Your task to perform on an android device: Show me productivity apps on the Play Store Image 0: 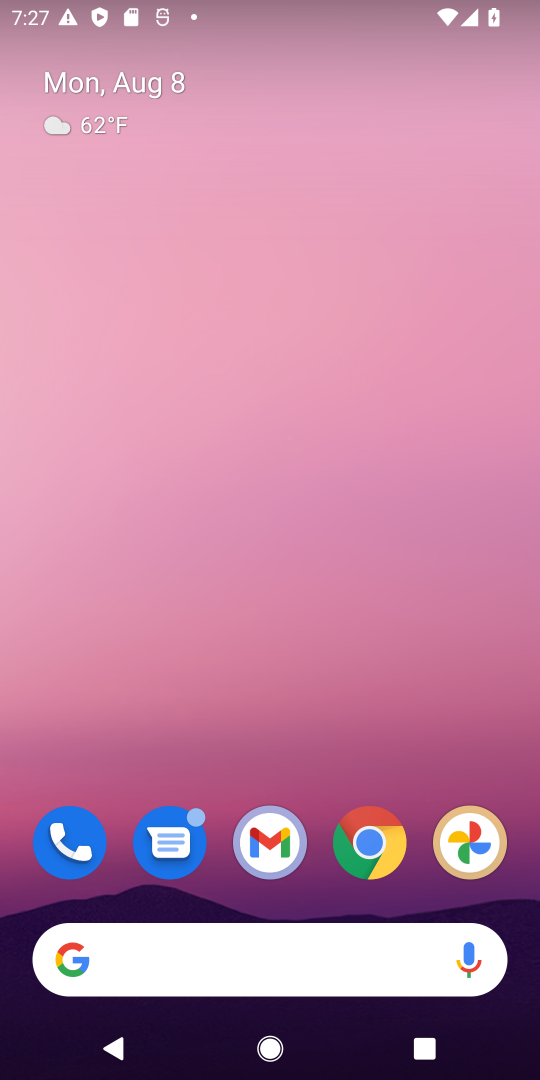
Step 0: drag from (318, 739) to (331, 0)
Your task to perform on an android device: Show me productivity apps on the Play Store Image 1: 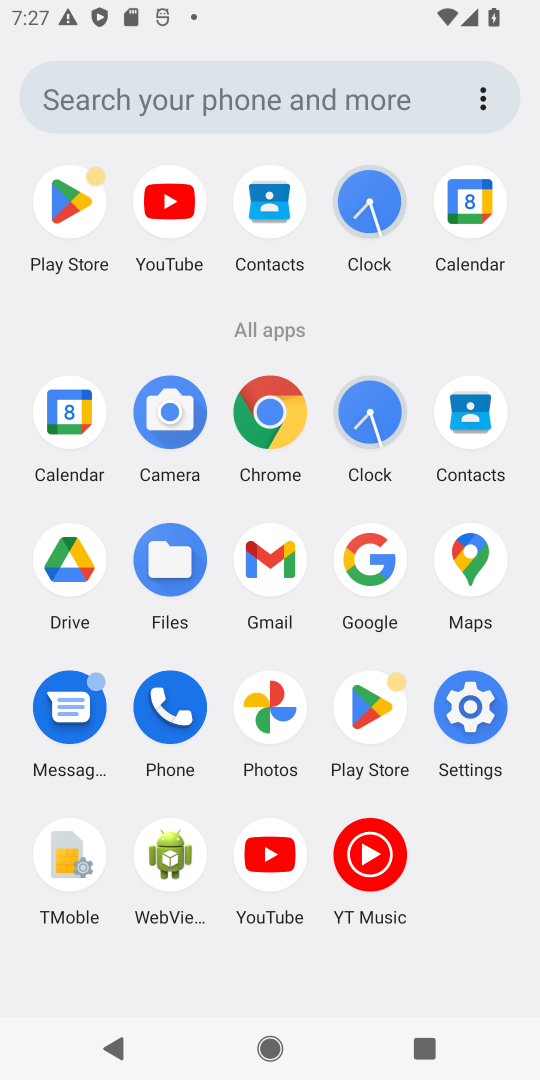
Step 1: click (365, 706)
Your task to perform on an android device: Show me productivity apps on the Play Store Image 2: 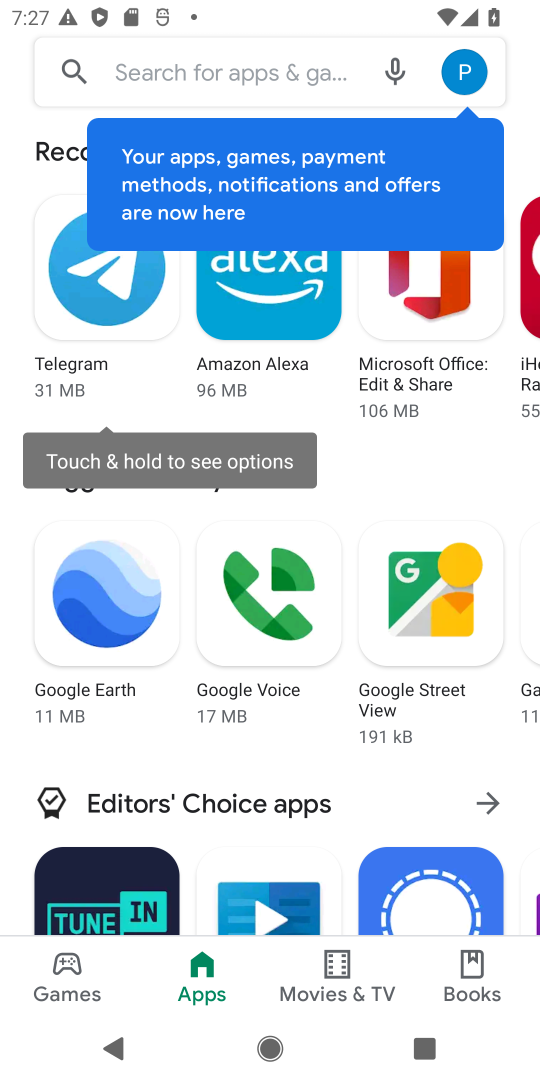
Step 2: drag from (343, 716) to (354, 331)
Your task to perform on an android device: Show me productivity apps on the Play Store Image 3: 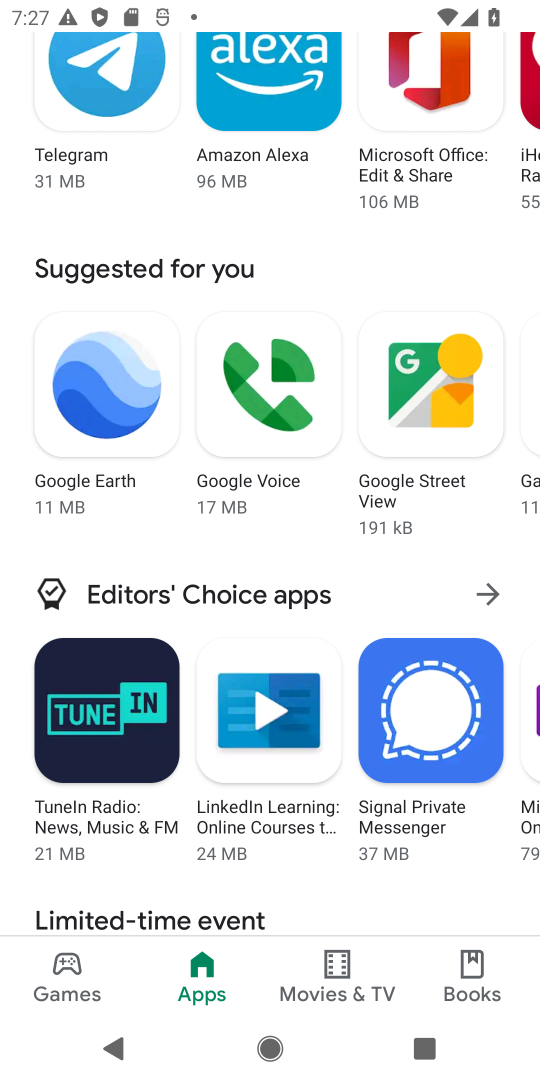
Step 3: press home button
Your task to perform on an android device: Show me productivity apps on the Play Store Image 4: 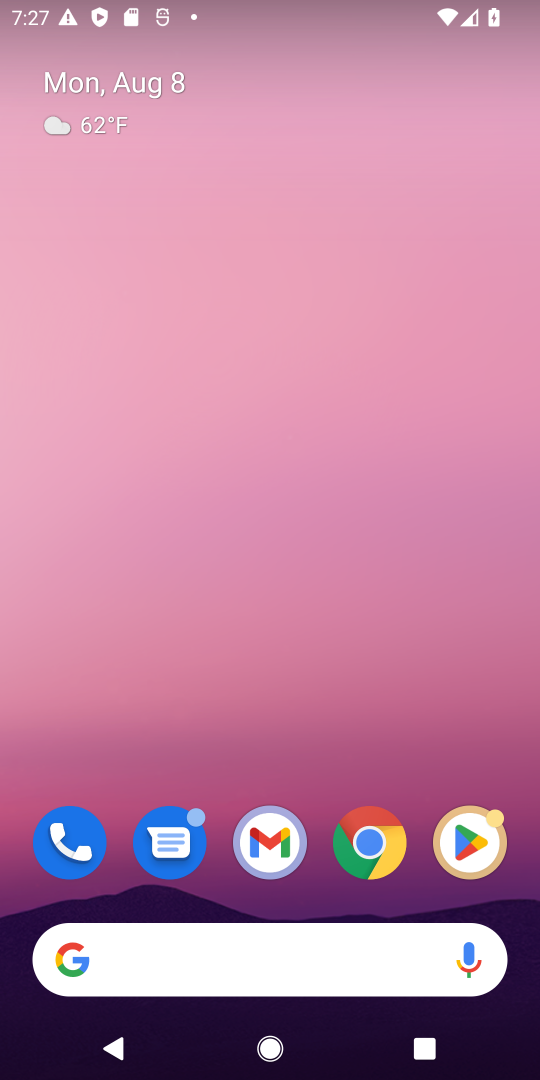
Step 4: drag from (240, 738) to (306, 6)
Your task to perform on an android device: Show me productivity apps on the Play Store Image 5: 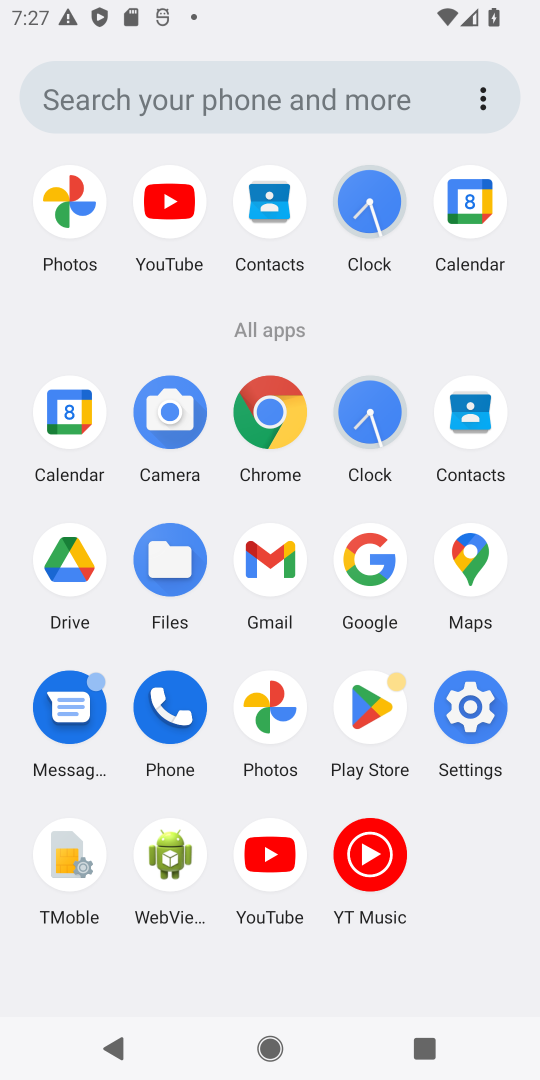
Step 5: click (367, 702)
Your task to perform on an android device: Show me productivity apps on the Play Store Image 6: 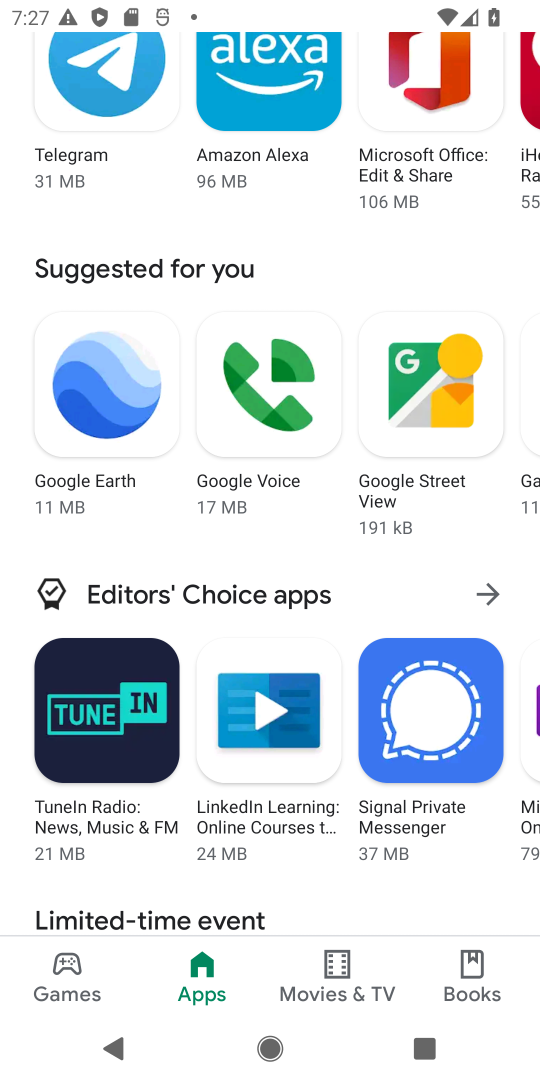
Step 6: press back button
Your task to perform on an android device: Show me productivity apps on the Play Store Image 7: 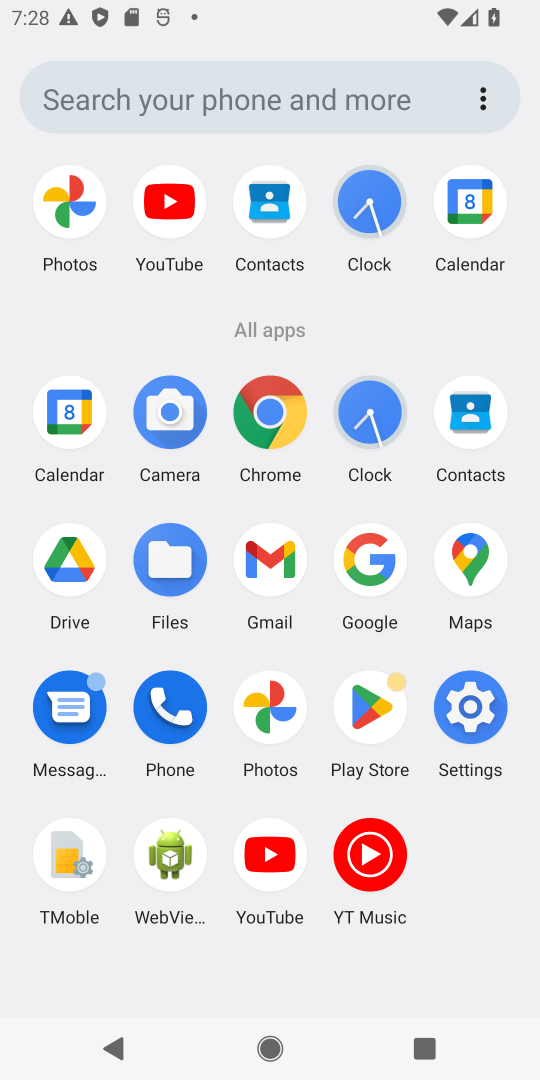
Step 7: click (383, 702)
Your task to perform on an android device: Show me productivity apps on the Play Store Image 8: 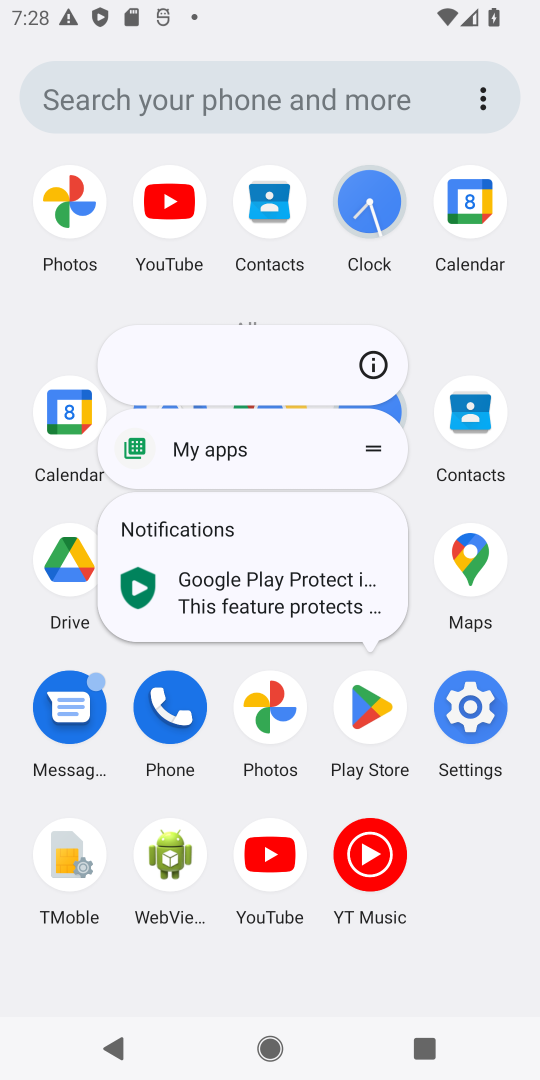
Step 8: click (383, 702)
Your task to perform on an android device: Show me productivity apps on the Play Store Image 9: 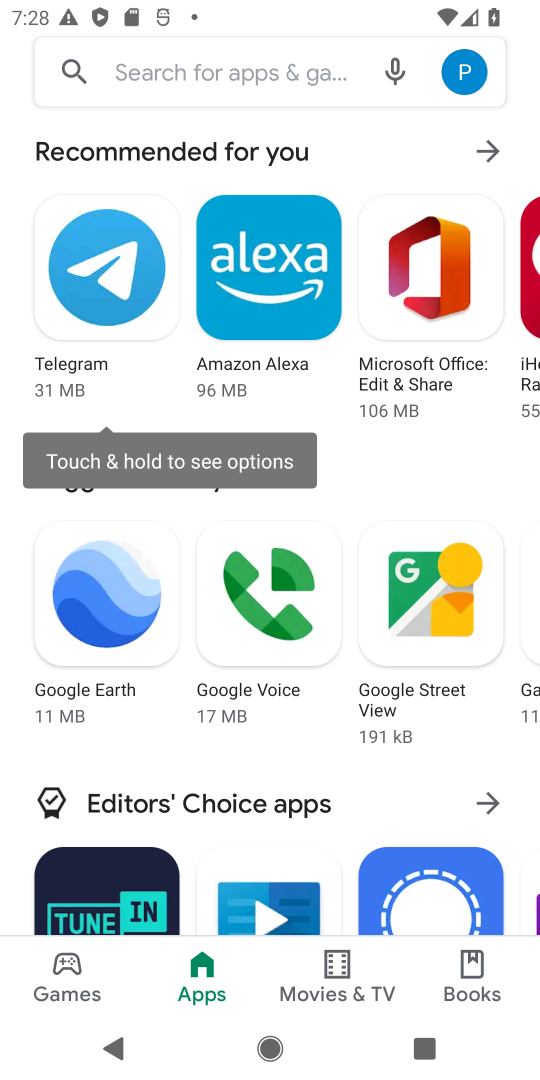
Step 9: click (68, 979)
Your task to perform on an android device: Show me productivity apps on the Play Store Image 10: 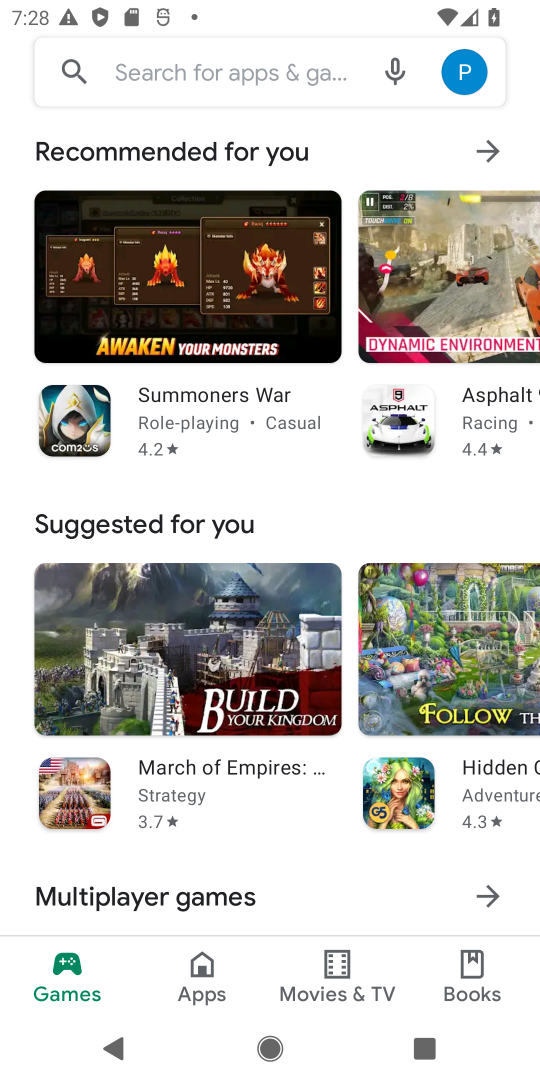
Step 10: drag from (368, 453) to (337, 854)
Your task to perform on an android device: Show me productivity apps on the Play Store Image 11: 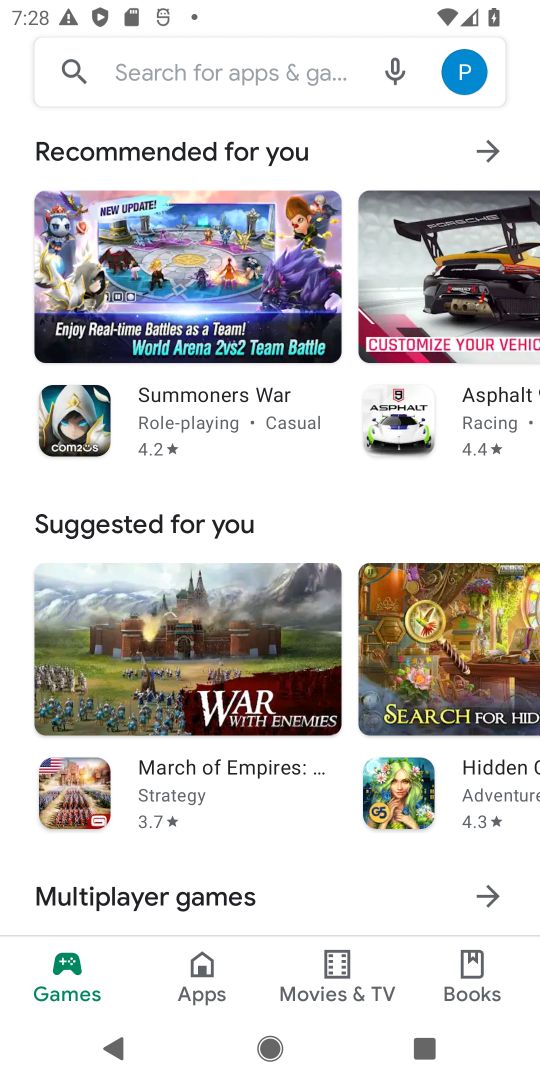
Step 11: drag from (193, 434) to (219, 736)
Your task to perform on an android device: Show me productivity apps on the Play Store Image 12: 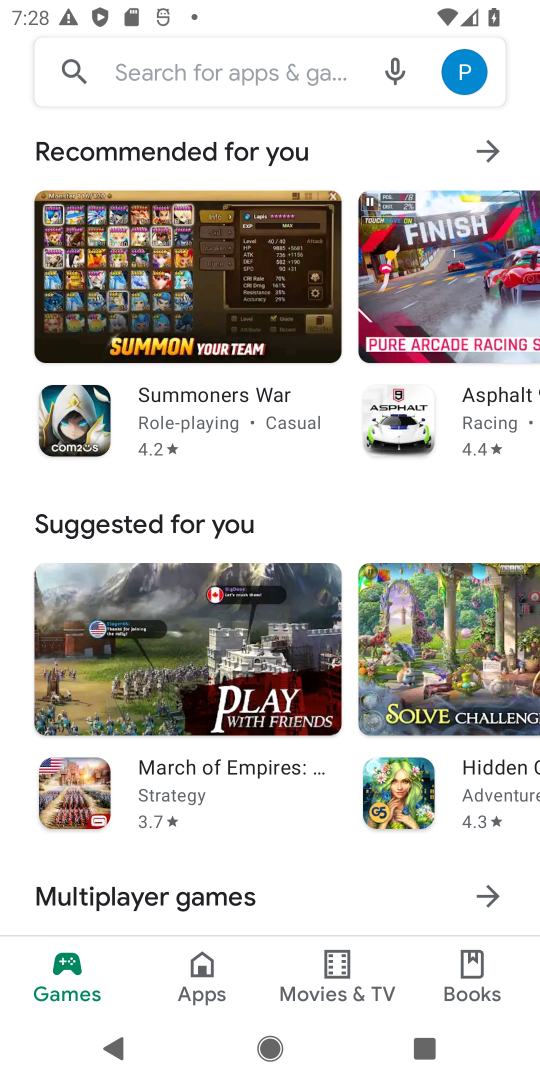
Step 12: click (471, 79)
Your task to perform on an android device: Show me productivity apps on the Play Store Image 13: 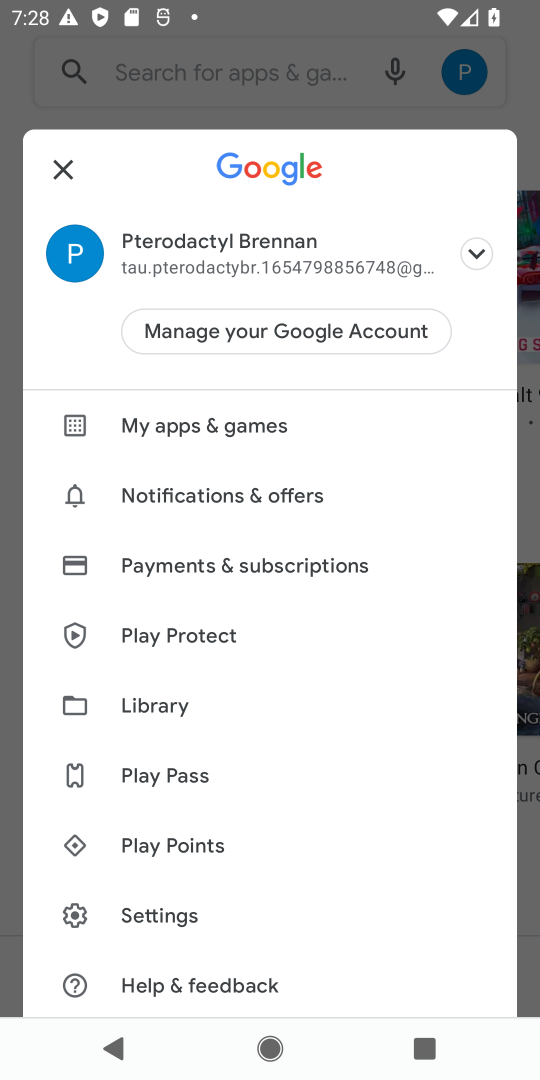
Step 13: click (242, 429)
Your task to perform on an android device: Show me productivity apps on the Play Store Image 14: 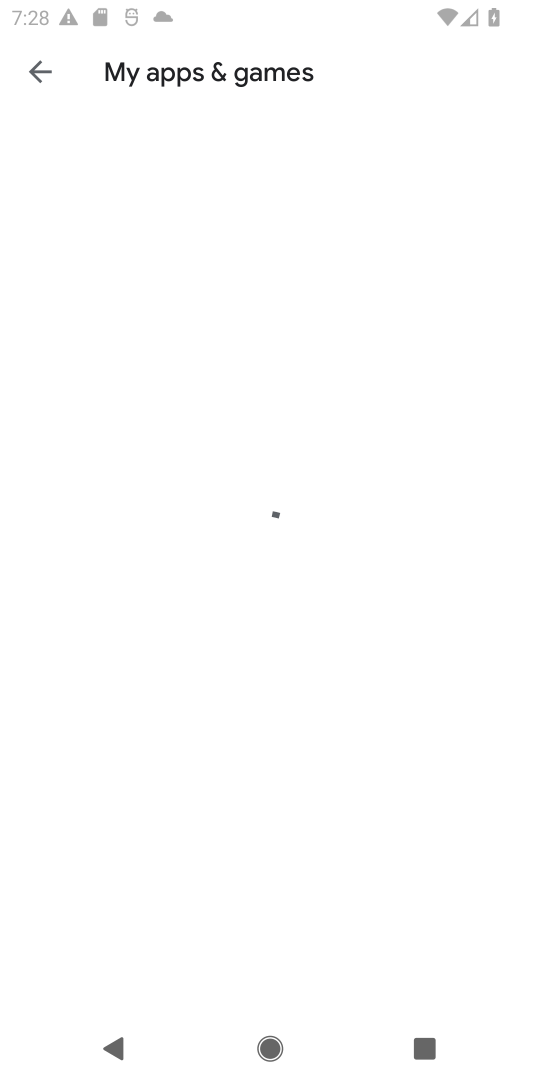
Step 14: click (242, 425)
Your task to perform on an android device: Show me productivity apps on the Play Store Image 15: 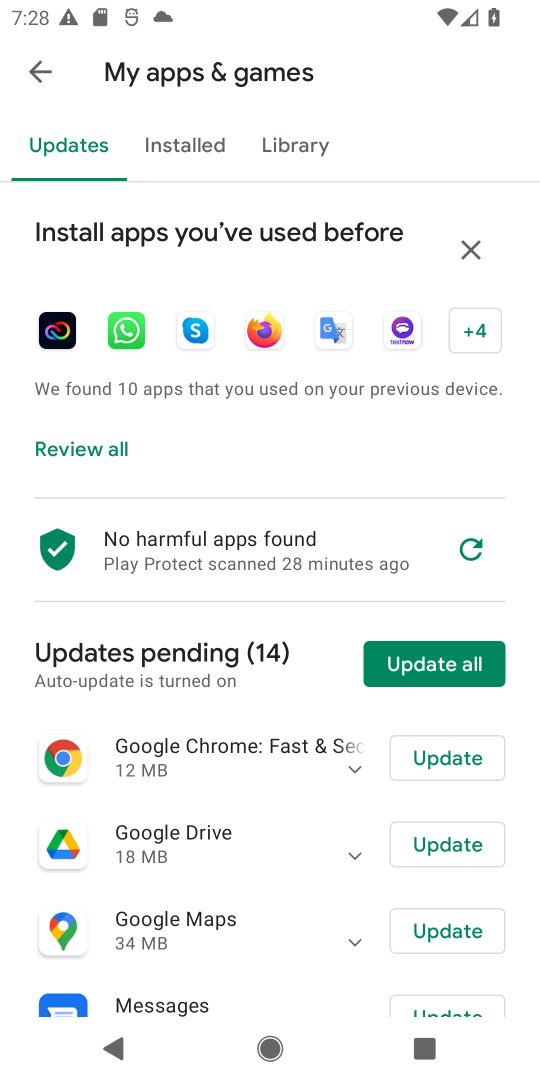
Step 15: task complete